Your task to perform on an android device: Open accessibility settings Image 0: 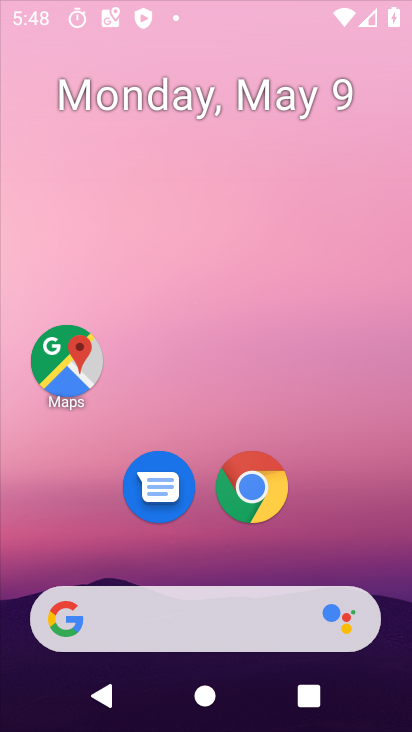
Step 0: drag from (242, 389) to (259, 163)
Your task to perform on an android device: Open accessibility settings Image 1: 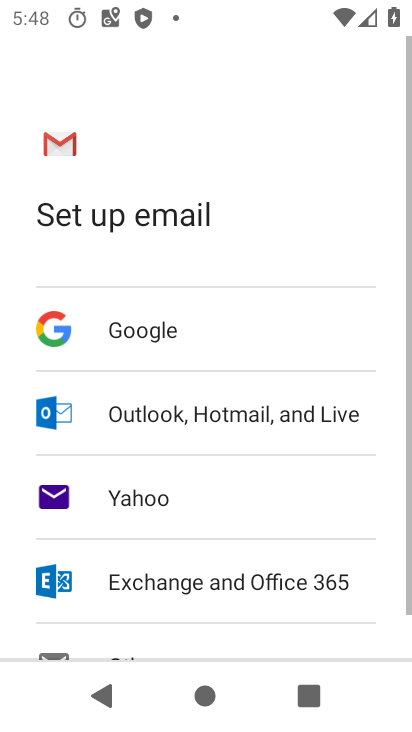
Step 1: press home button
Your task to perform on an android device: Open accessibility settings Image 2: 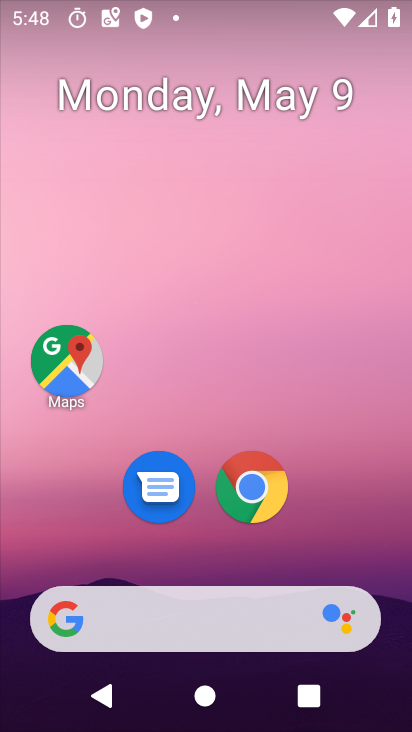
Step 2: drag from (267, 495) to (266, 151)
Your task to perform on an android device: Open accessibility settings Image 3: 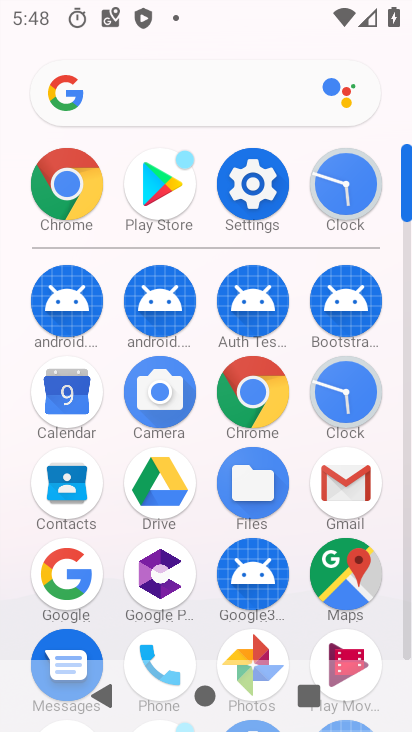
Step 3: drag from (181, 587) to (225, 174)
Your task to perform on an android device: Open accessibility settings Image 4: 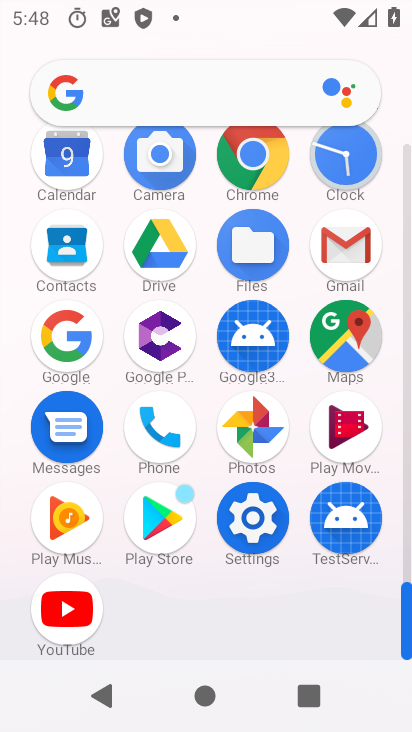
Step 4: click (246, 497)
Your task to perform on an android device: Open accessibility settings Image 5: 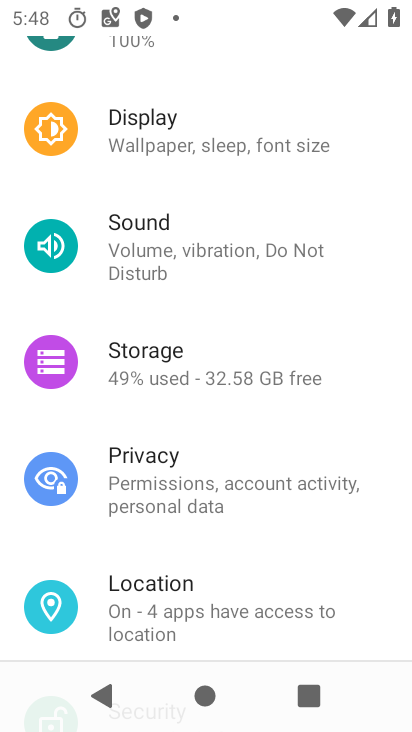
Step 5: drag from (198, 538) to (233, 94)
Your task to perform on an android device: Open accessibility settings Image 6: 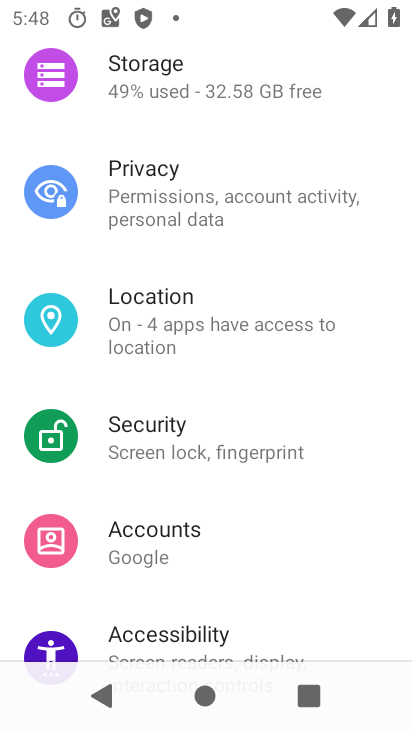
Step 6: click (158, 630)
Your task to perform on an android device: Open accessibility settings Image 7: 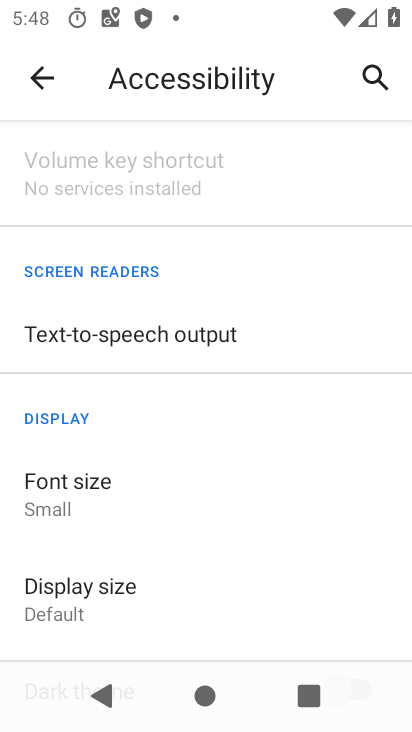
Step 7: task complete